Your task to perform on an android device: Go to notification settings Image 0: 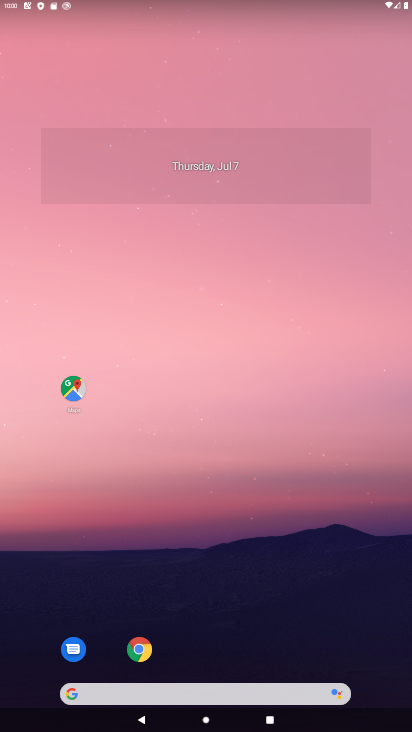
Step 0: drag from (258, 547) to (242, 225)
Your task to perform on an android device: Go to notification settings Image 1: 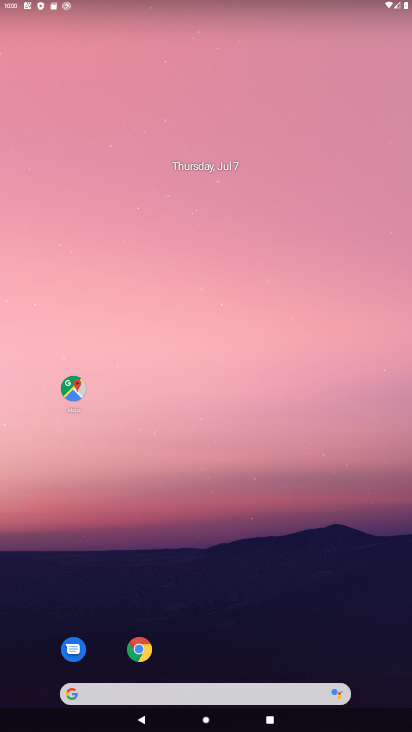
Step 1: drag from (297, 532) to (311, 18)
Your task to perform on an android device: Go to notification settings Image 2: 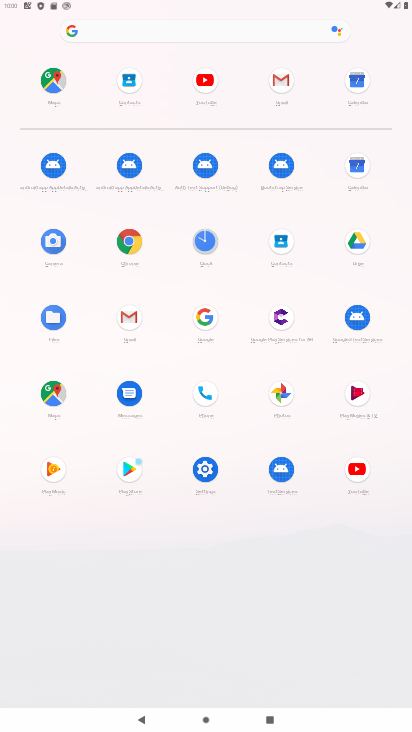
Step 2: click (209, 468)
Your task to perform on an android device: Go to notification settings Image 3: 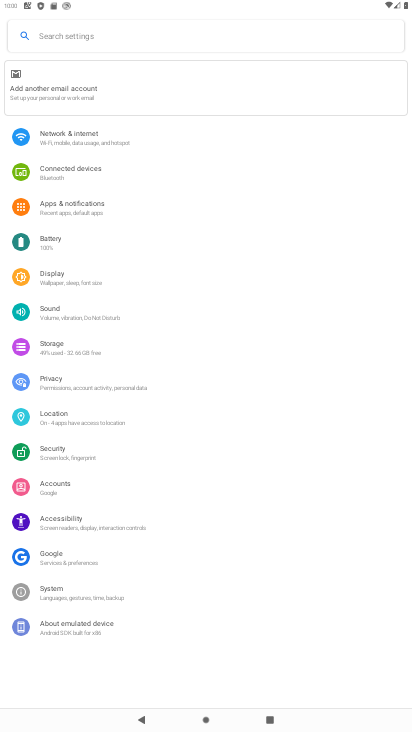
Step 3: click (170, 31)
Your task to perform on an android device: Go to notification settings Image 4: 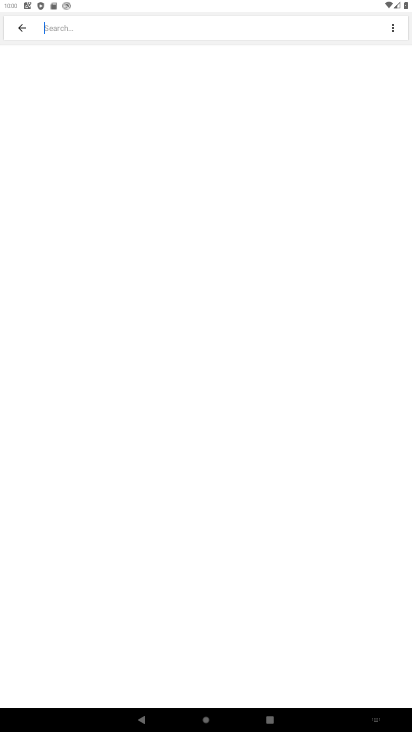
Step 4: type "notification"
Your task to perform on an android device: Go to notification settings Image 5: 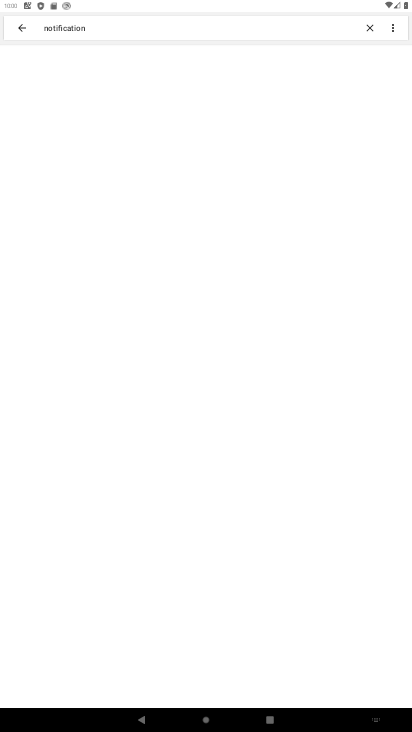
Step 5: press enter
Your task to perform on an android device: Go to notification settings Image 6: 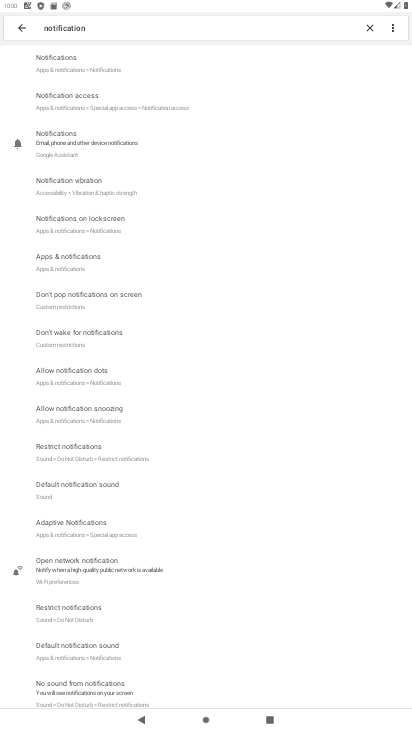
Step 6: click (86, 63)
Your task to perform on an android device: Go to notification settings Image 7: 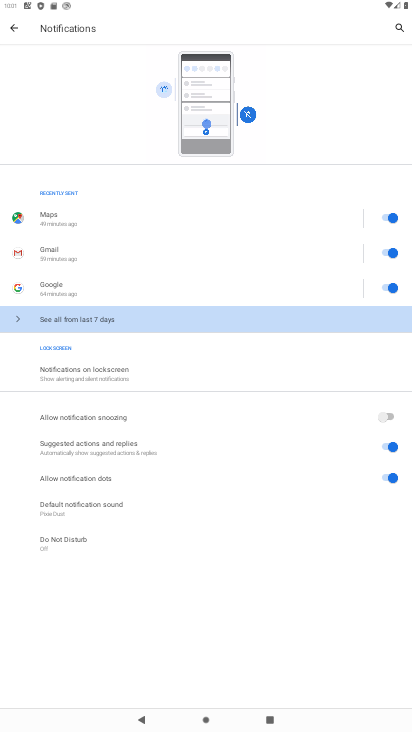
Step 7: task complete